Your task to perform on an android device: turn off sleep mode Image 0: 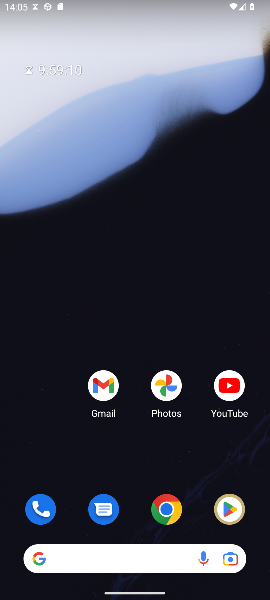
Step 0: press home button
Your task to perform on an android device: turn off sleep mode Image 1: 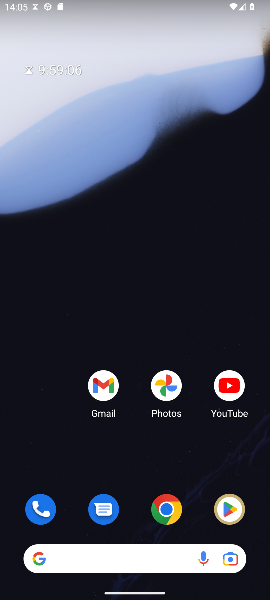
Step 1: drag from (143, 518) to (220, 52)
Your task to perform on an android device: turn off sleep mode Image 2: 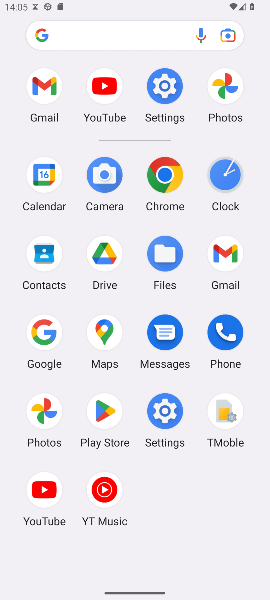
Step 2: click (159, 86)
Your task to perform on an android device: turn off sleep mode Image 3: 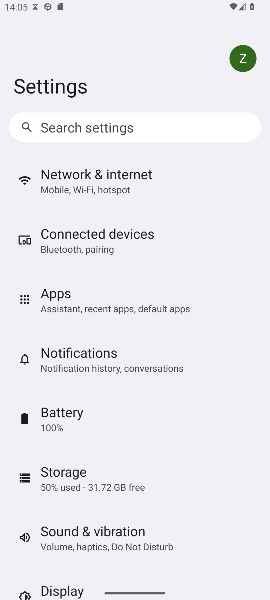
Step 3: drag from (192, 487) to (182, 296)
Your task to perform on an android device: turn off sleep mode Image 4: 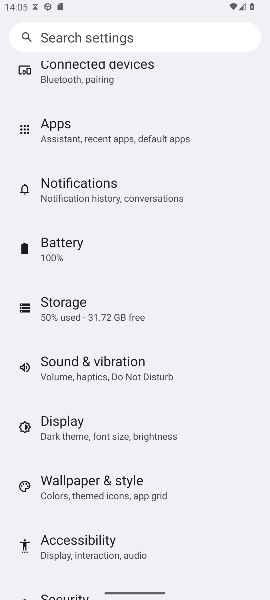
Step 4: click (55, 432)
Your task to perform on an android device: turn off sleep mode Image 5: 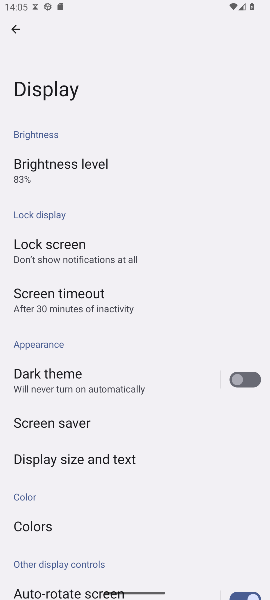
Step 5: task complete